Your task to perform on an android device: toggle show notifications on the lock screen Image 0: 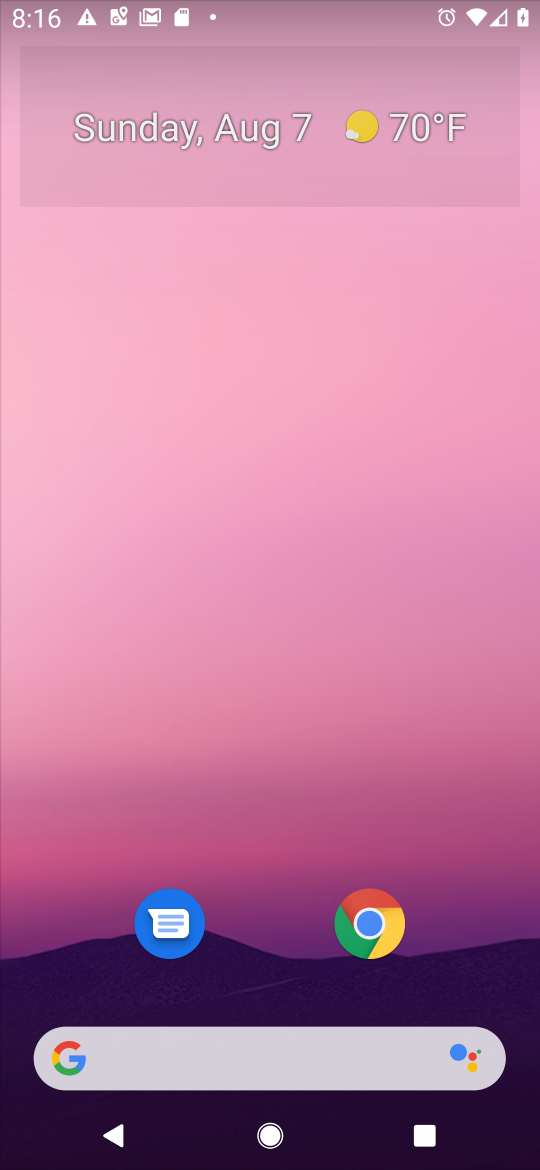
Step 0: drag from (440, 945) to (342, 169)
Your task to perform on an android device: toggle show notifications on the lock screen Image 1: 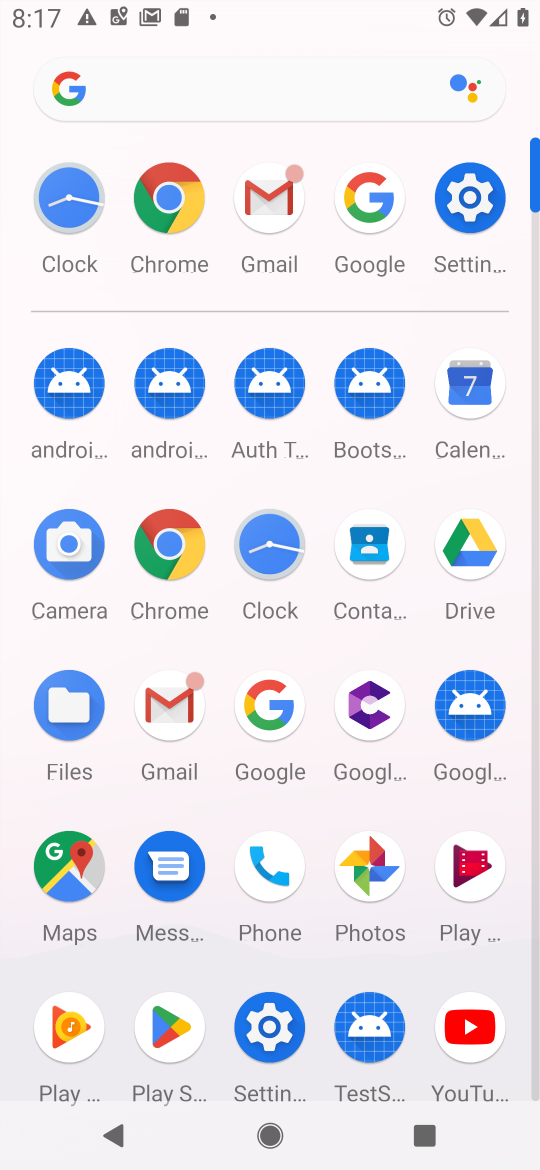
Step 1: click (467, 180)
Your task to perform on an android device: toggle show notifications on the lock screen Image 2: 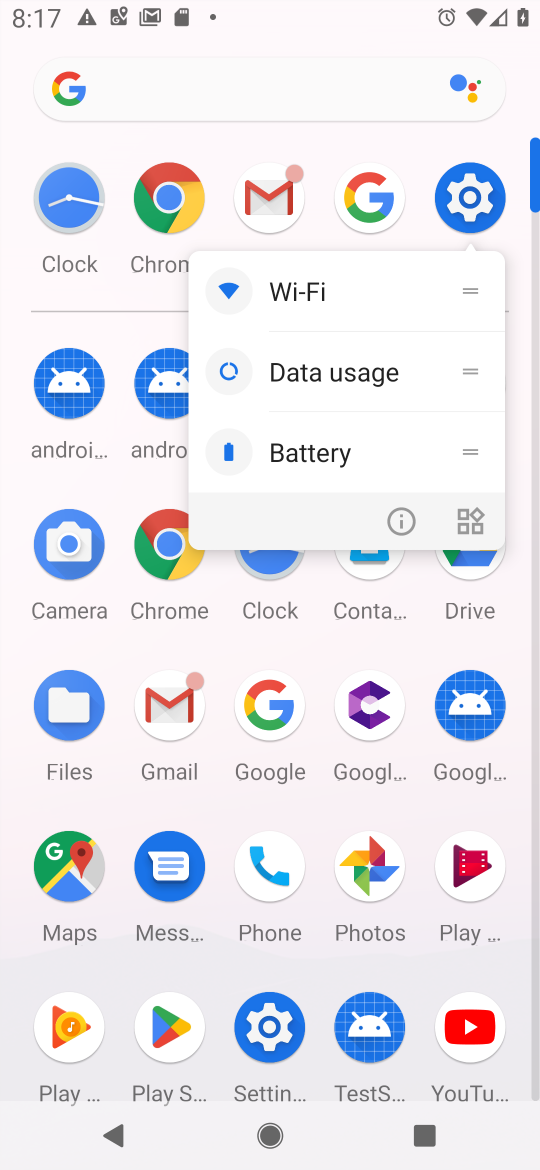
Step 2: click (467, 180)
Your task to perform on an android device: toggle show notifications on the lock screen Image 3: 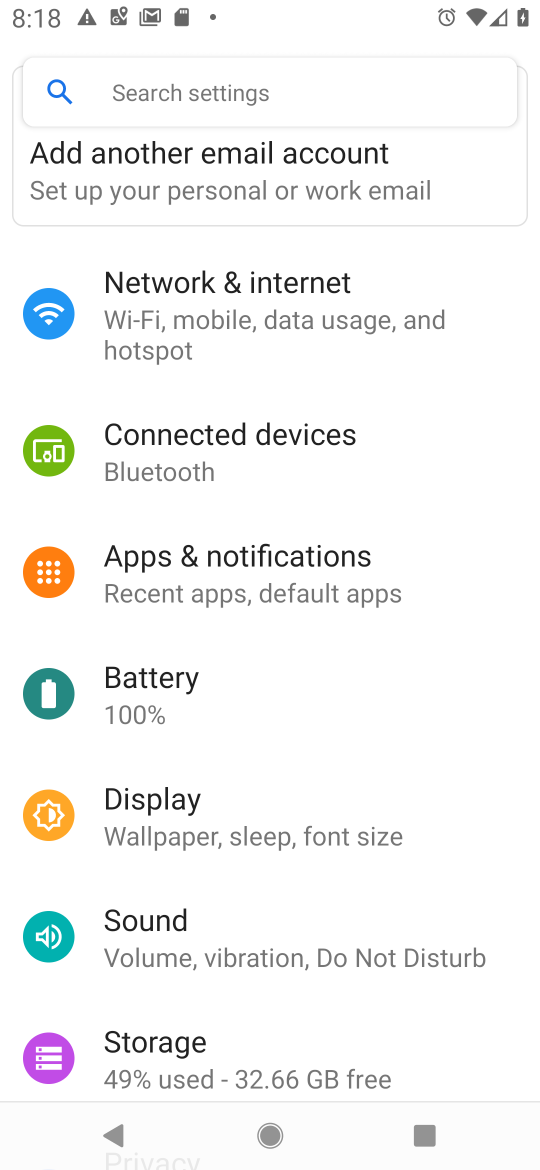
Step 3: click (261, 573)
Your task to perform on an android device: toggle show notifications on the lock screen Image 4: 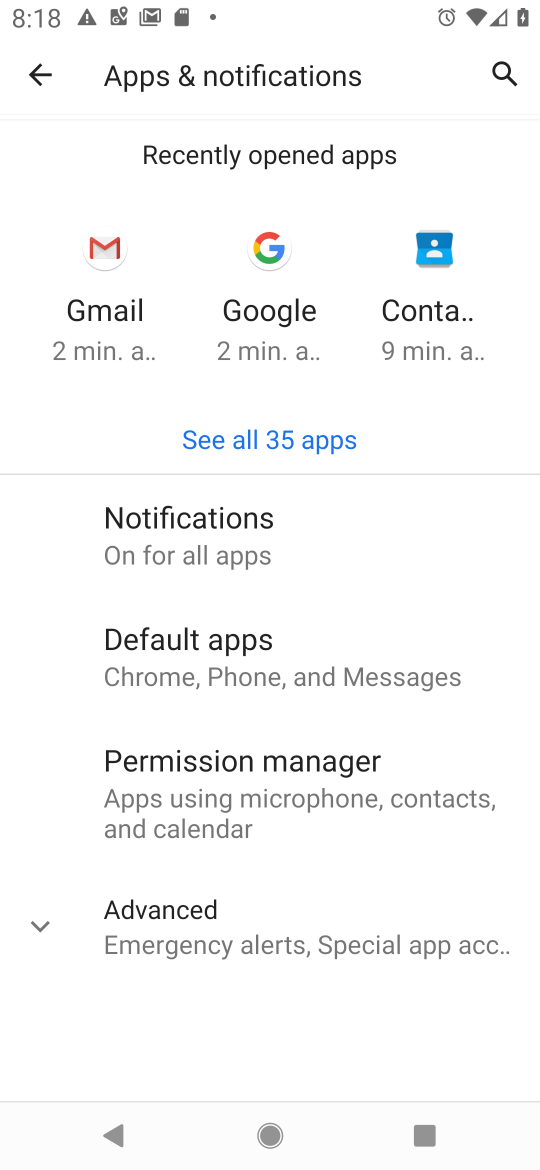
Step 4: click (189, 517)
Your task to perform on an android device: toggle show notifications on the lock screen Image 5: 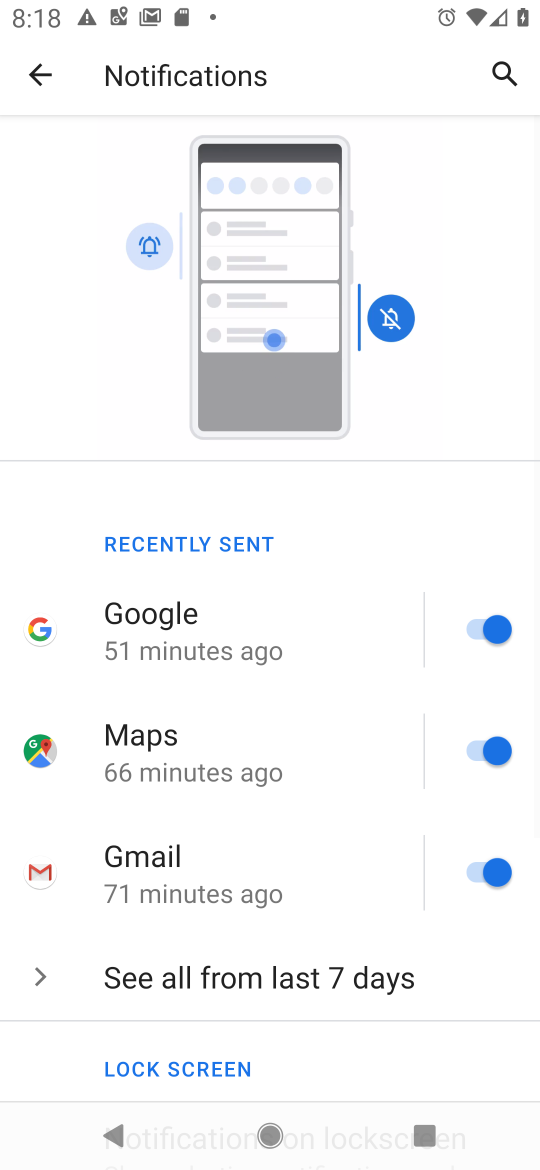
Step 5: drag from (213, 1026) to (205, 115)
Your task to perform on an android device: toggle show notifications on the lock screen Image 6: 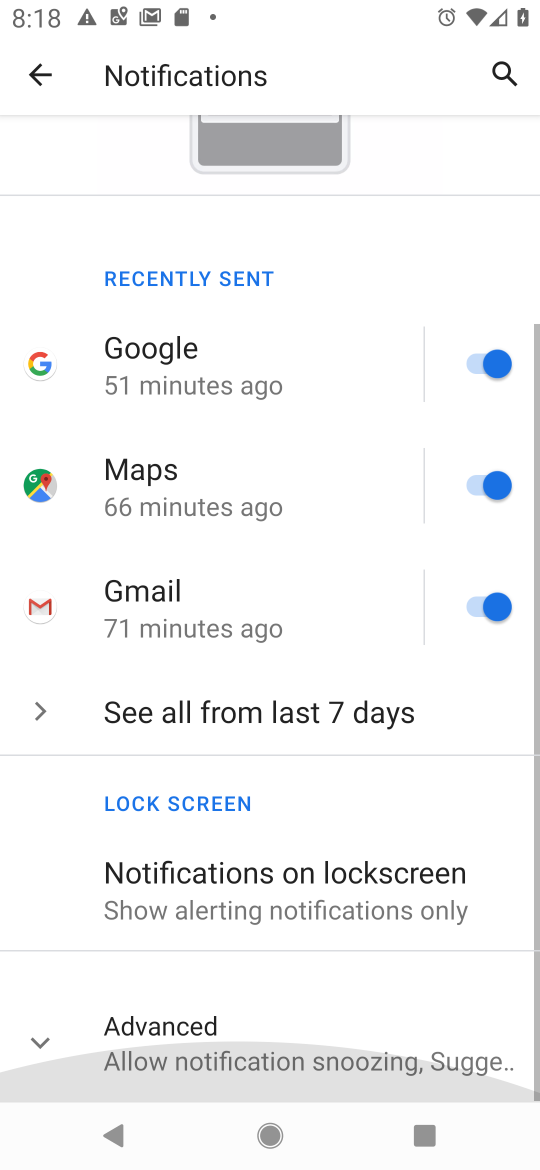
Step 6: click (203, 871)
Your task to perform on an android device: toggle show notifications on the lock screen Image 7: 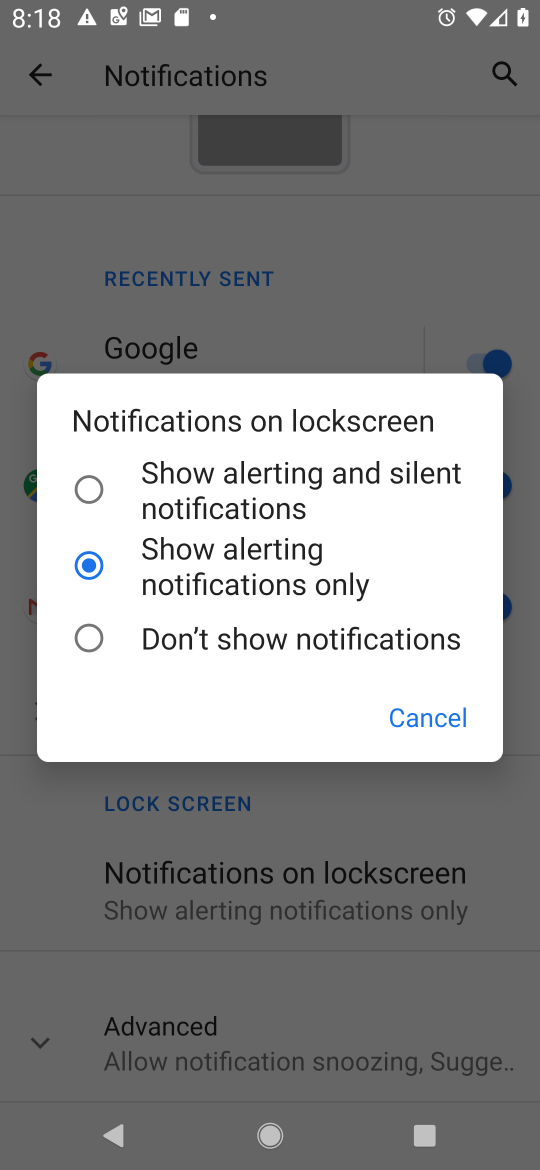
Step 7: click (131, 510)
Your task to perform on an android device: toggle show notifications on the lock screen Image 8: 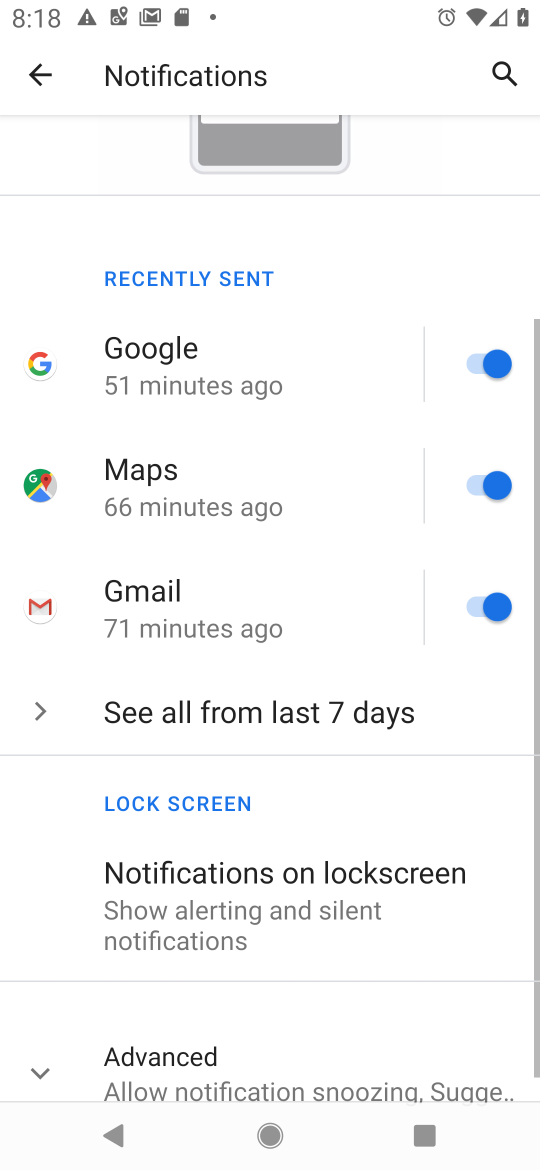
Step 8: task complete